Your task to perform on an android device: Open Maps and search for coffee Image 0: 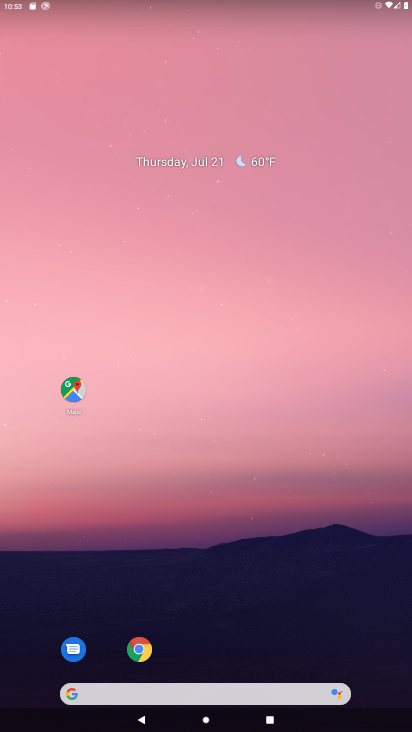
Step 0: click (63, 392)
Your task to perform on an android device: Open Maps and search for coffee Image 1: 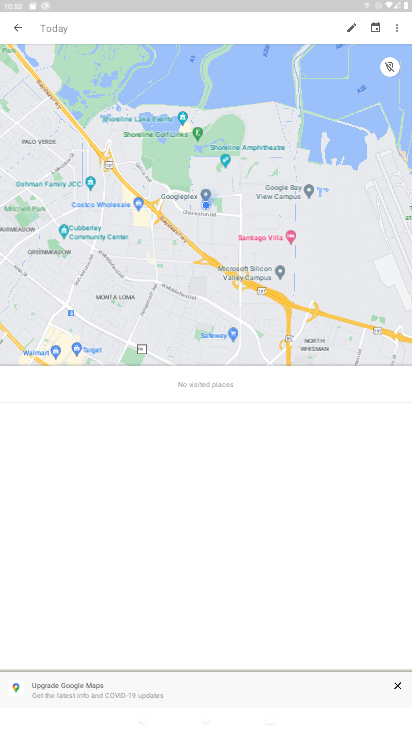
Step 1: click (160, 28)
Your task to perform on an android device: Open Maps and search for coffee Image 2: 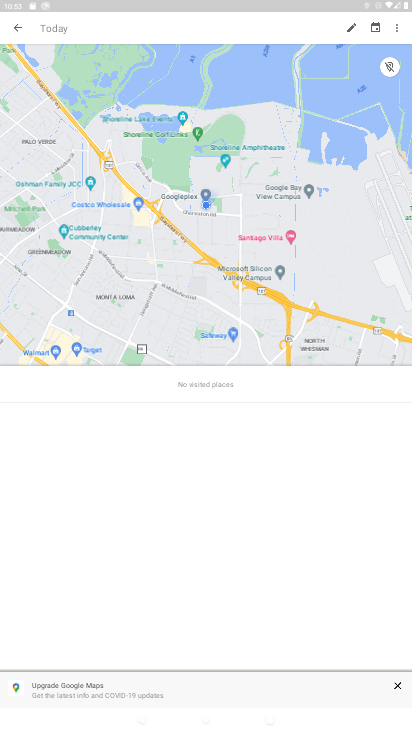
Step 2: click (144, 22)
Your task to perform on an android device: Open Maps and search for coffee Image 3: 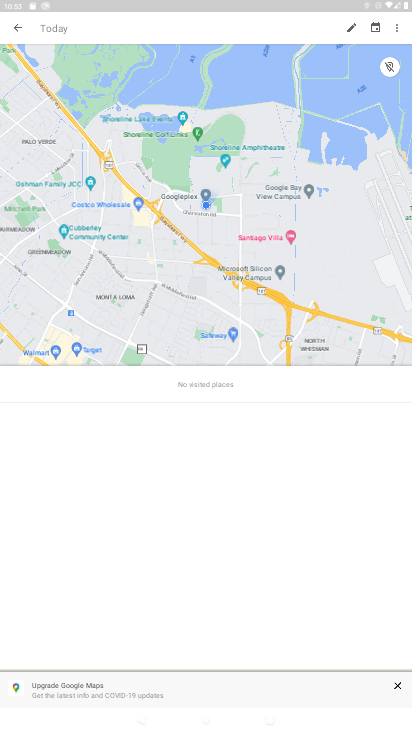
Step 3: click (21, 30)
Your task to perform on an android device: Open Maps and search for coffee Image 4: 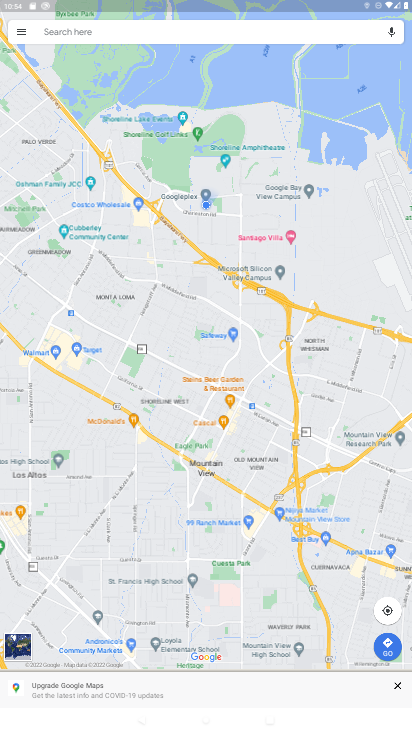
Step 4: click (61, 31)
Your task to perform on an android device: Open Maps and search for coffee Image 5: 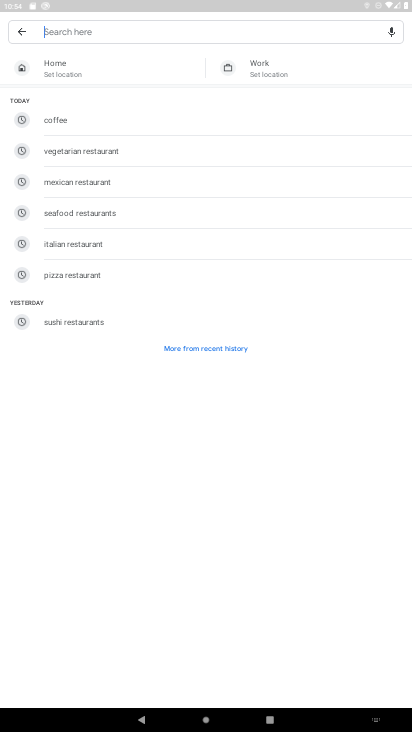
Step 5: type "coffee"
Your task to perform on an android device: Open Maps and search for coffee Image 6: 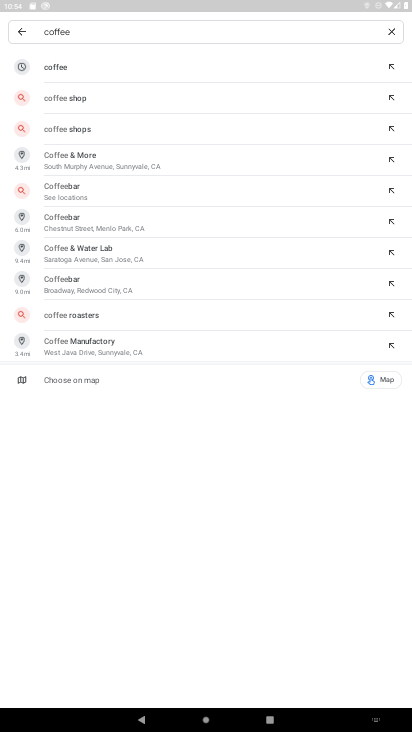
Step 6: click (83, 94)
Your task to perform on an android device: Open Maps and search for coffee Image 7: 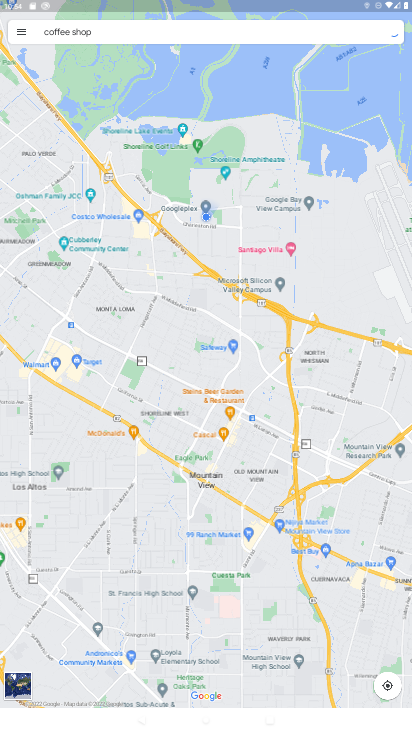
Step 7: task complete